Your task to perform on an android device: Open location settings Image 0: 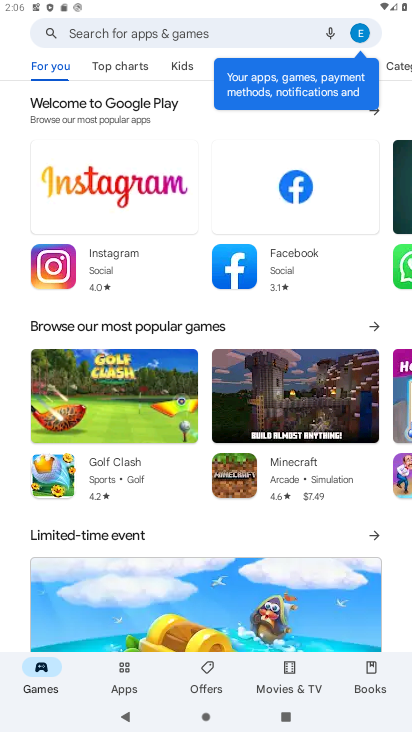
Step 0: press home button
Your task to perform on an android device: Open location settings Image 1: 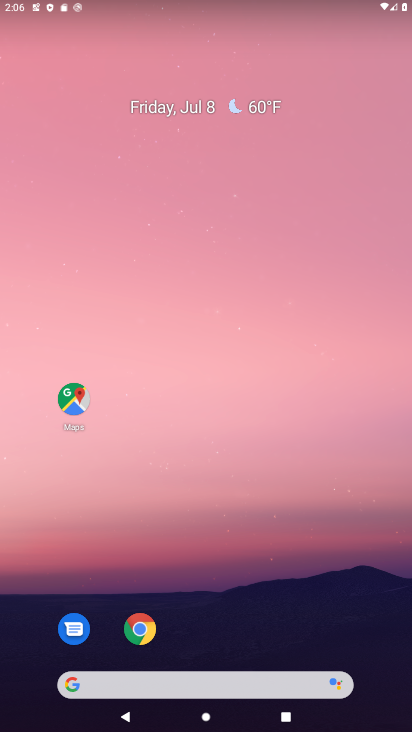
Step 1: drag from (239, 596) to (231, 199)
Your task to perform on an android device: Open location settings Image 2: 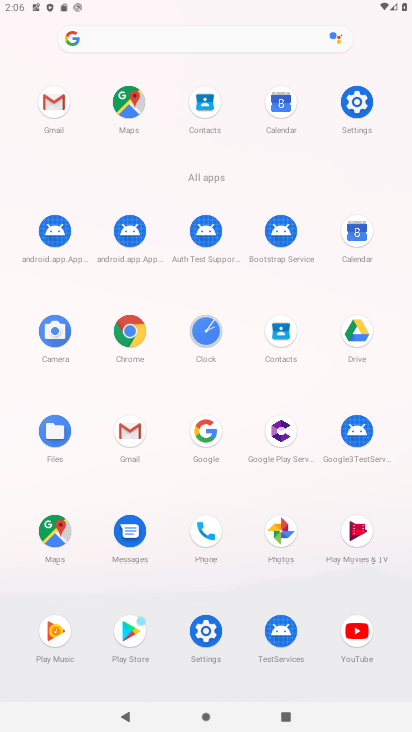
Step 2: click (354, 113)
Your task to perform on an android device: Open location settings Image 3: 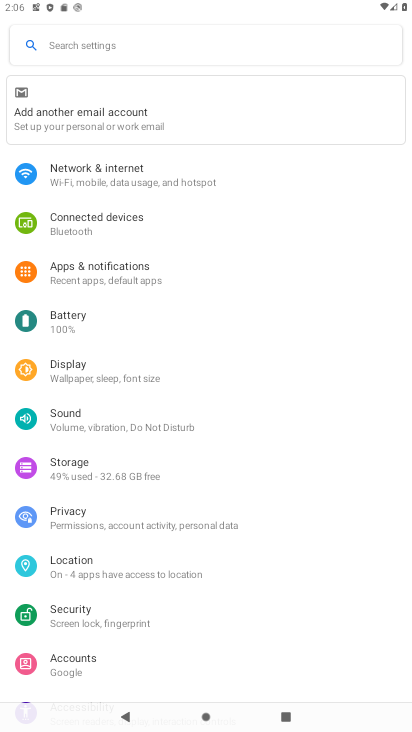
Step 3: click (108, 563)
Your task to perform on an android device: Open location settings Image 4: 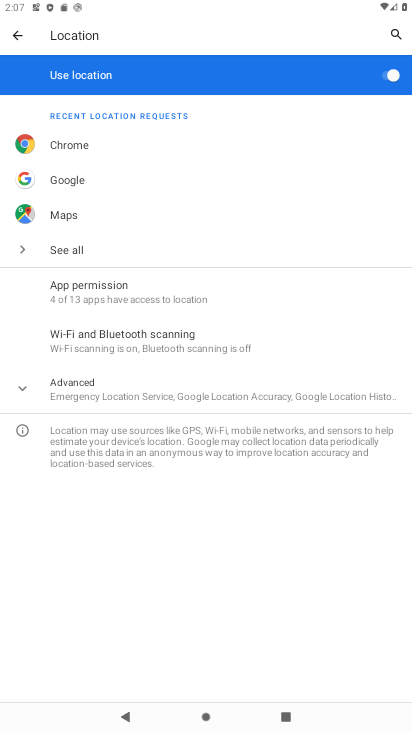
Step 4: task complete